Your task to perform on an android device: Search for sushi restaurants on Maps Image 0: 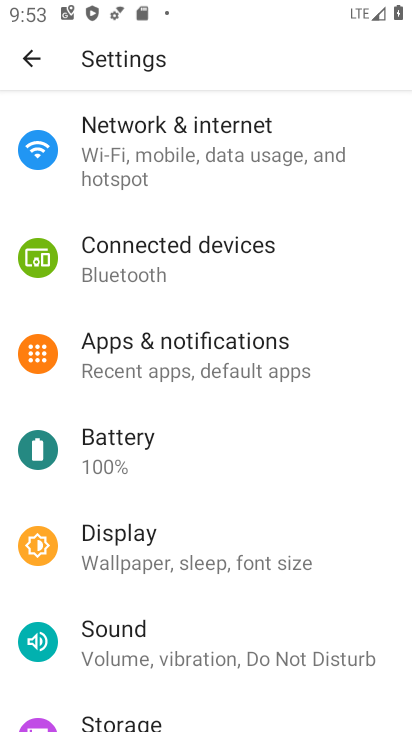
Step 0: press home button
Your task to perform on an android device: Search for sushi restaurants on Maps Image 1: 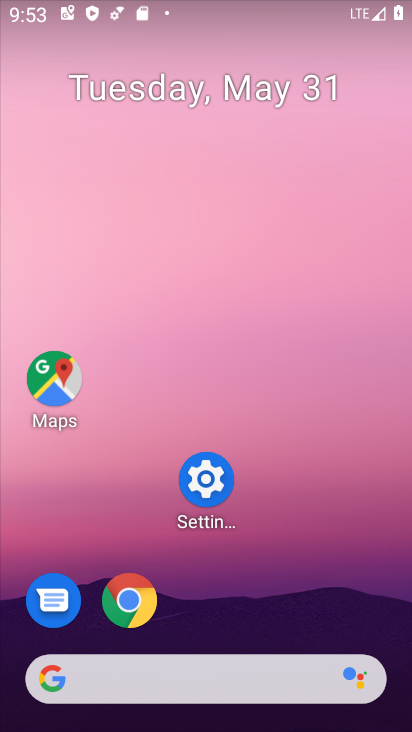
Step 1: click (60, 381)
Your task to perform on an android device: Search for sushi restaurants on Maps Image 2: 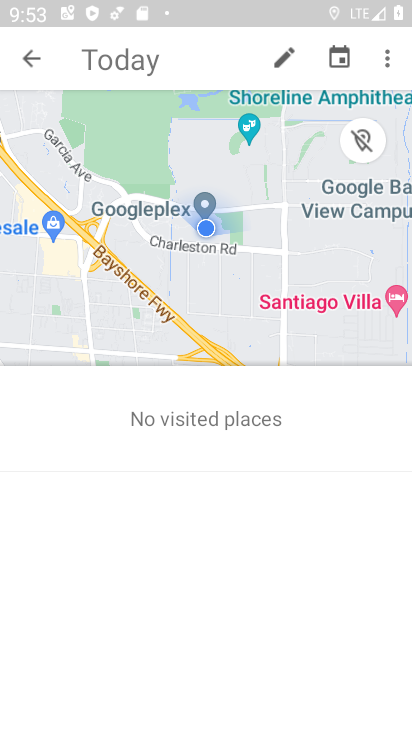
Step 2: click (46, 43)
Your task to perform on an android device: Search for sushi restaurants on Maps Image 3: 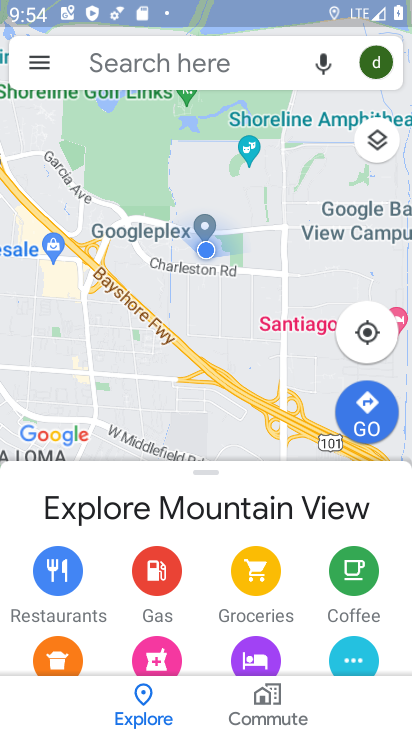
Step 3: click (141, 64)
Your task to perform on an android device: Search for sushi restaurants on Maps Image 4: 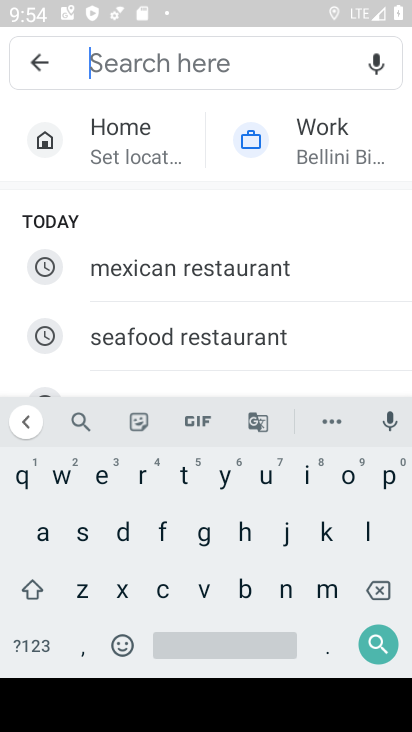
Step 4: click (78, 541)
Your task to perform on an android device: Search for sushi restaurants on Maps Image 5: 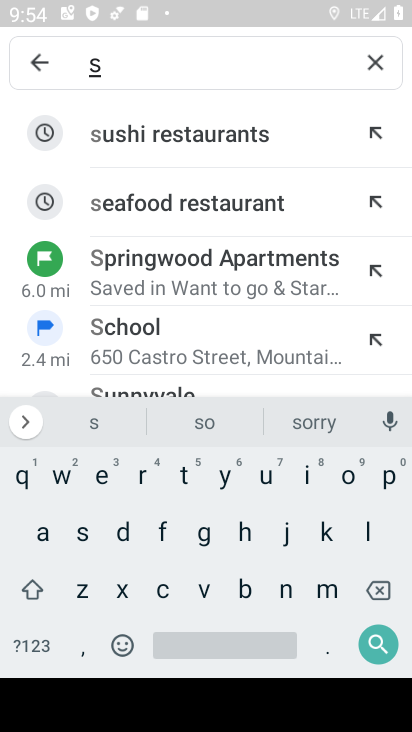
Step 5: click (165, 131)
Your task to perform on an android device: Search for sushi restaurants on Maps Image 6: 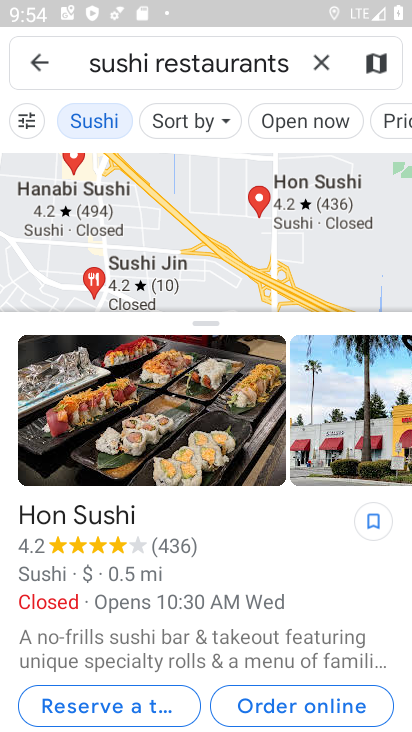
Step 6: task complete